Your task to perform on an android device: Go to location settings Image 0: 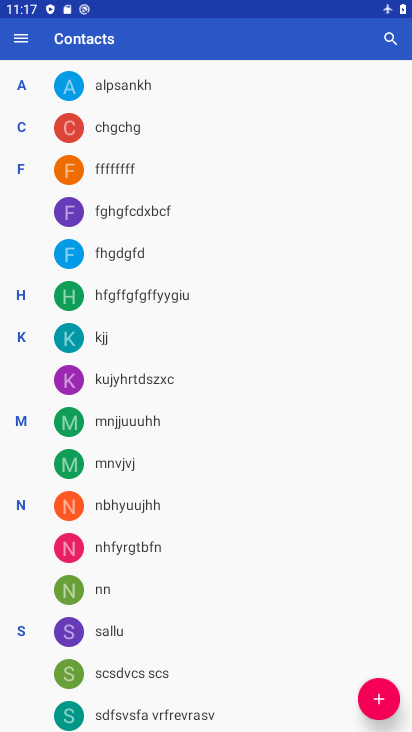
Step 0: press home button
Your task to perform on an android device: Go to location settings Image 1: 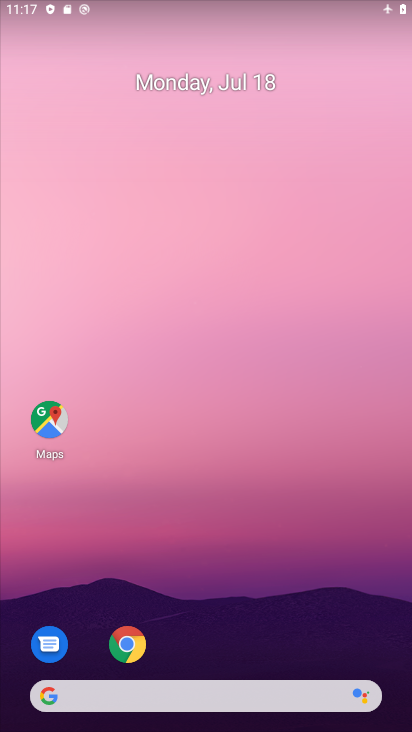
Step 1: drag from (184, 661) to (238, 33)
Your task to perform on an android device: Go to location settings Image 2: 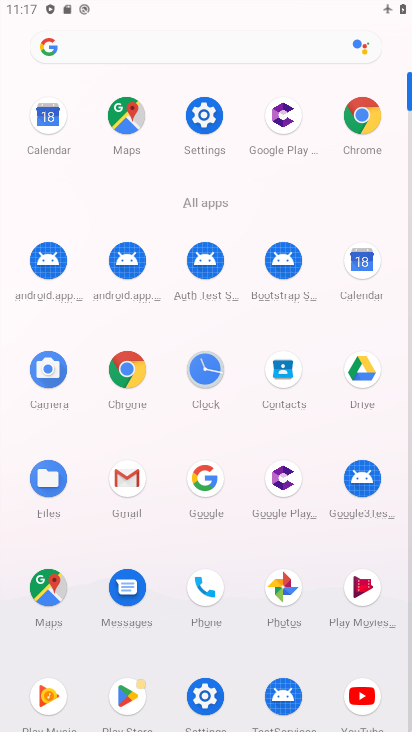
Step 2: click (220, 694)
Your task to perform on an android device: Go to location settings Image 3: 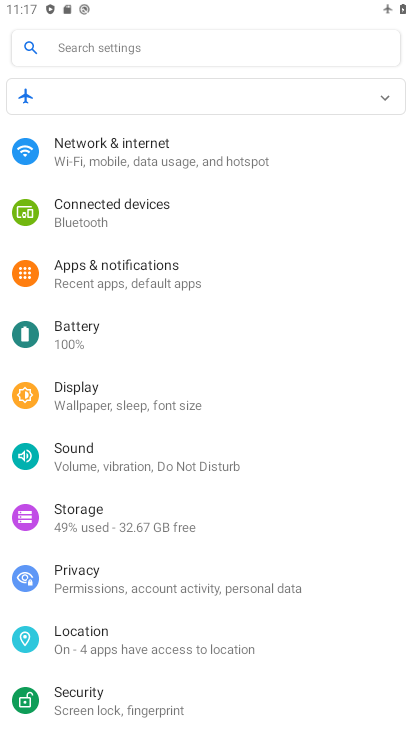
Step 3: click (119, 661)
Your task to perform on an android device: Go to location settings Image 4: 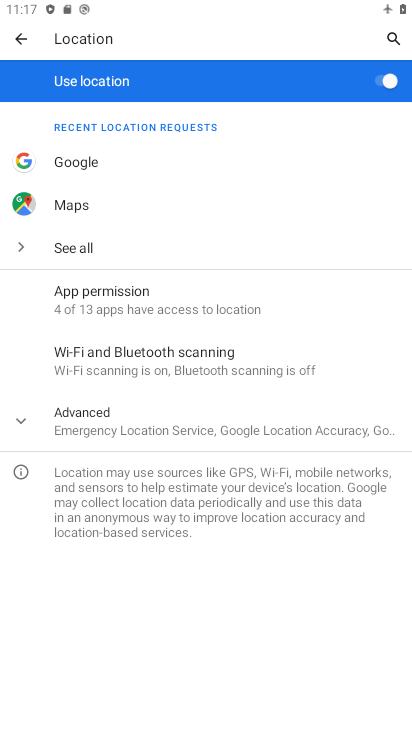
Step 4: task complete